Your task to perform on an android device: Search for the best way to make a resume. Image 0: 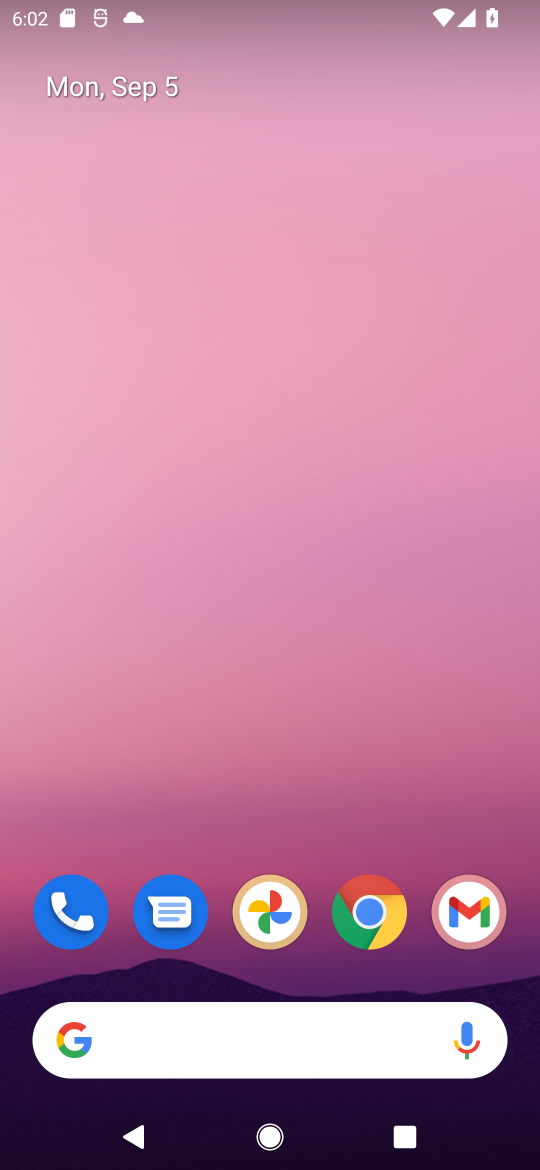
Step 0: click (380, 923)
Your task to perform on an android device: Search for the best way to make a resume. Image 1: 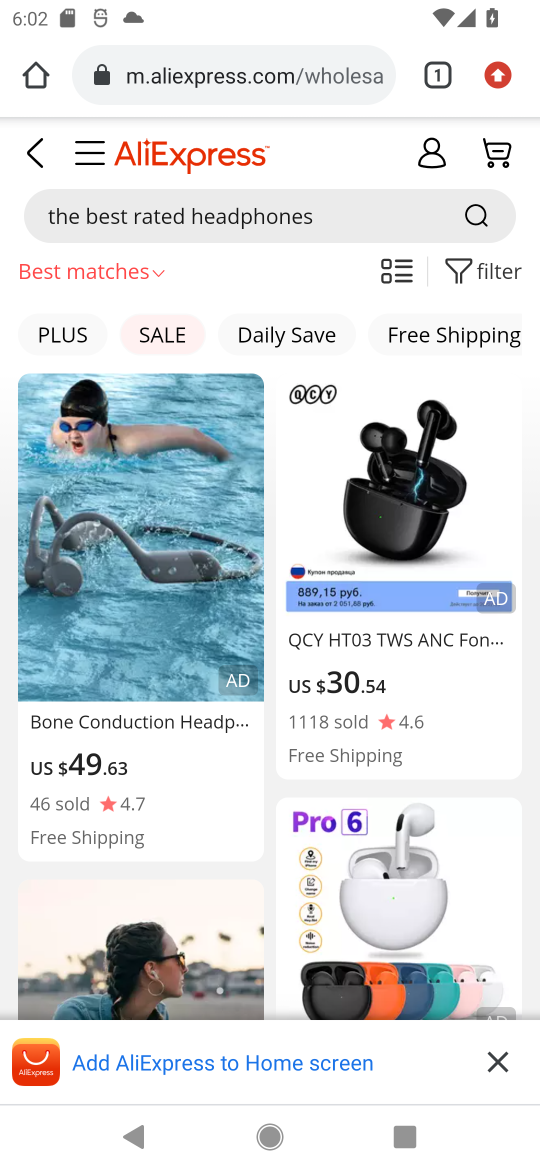
Step 1: click (326, 68)
Your task to perform on an android device: Search for the best way to make a resume. Image 2: 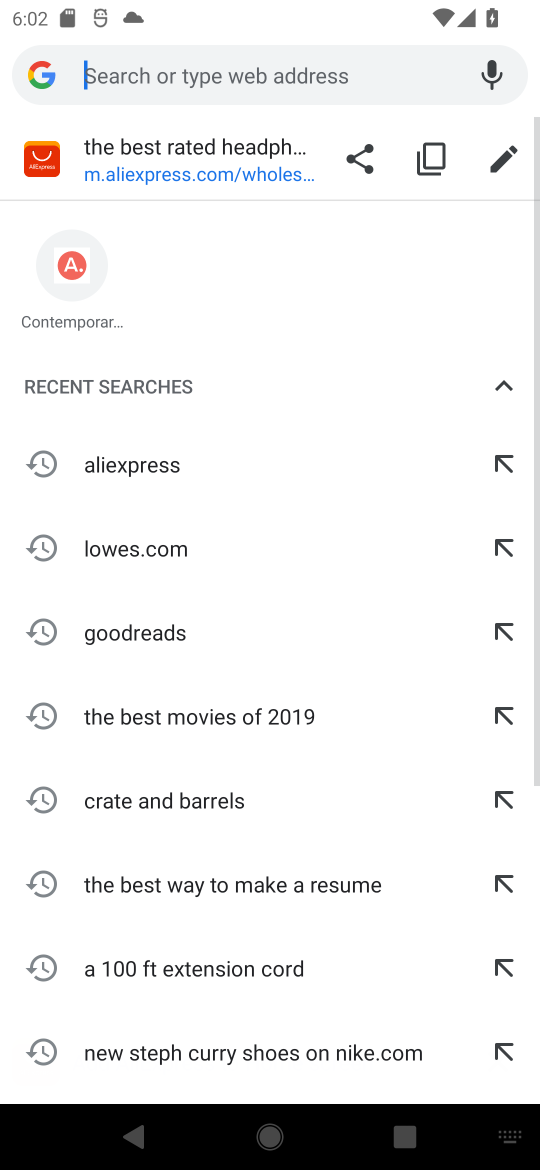
Step 2: click (495, 1163)
Your task to perform on an android device: Search for the best way to make a resume. Image 3: 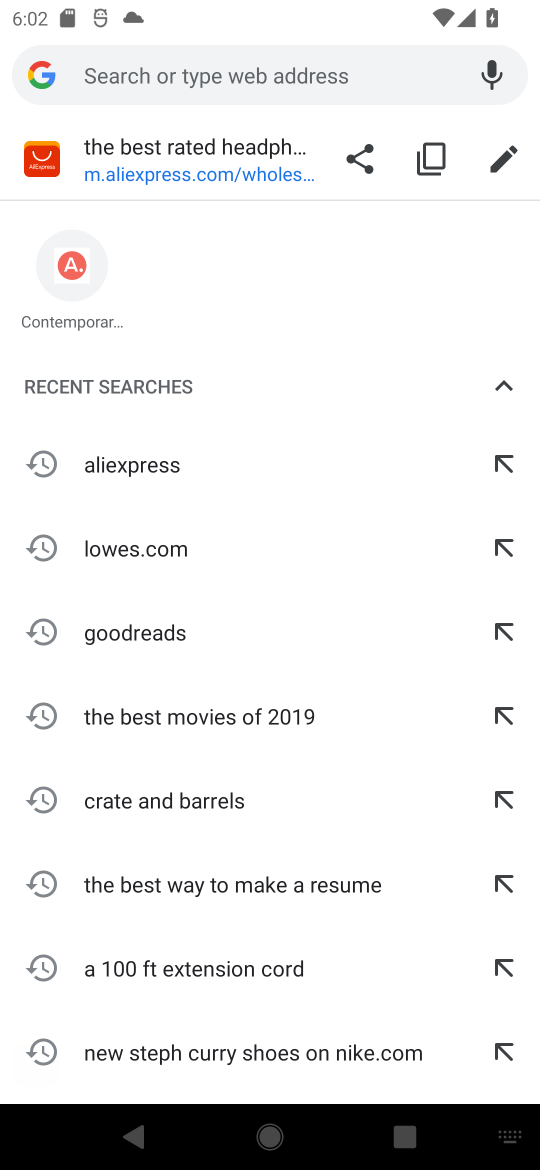
Step 3: type "the best way to make a resume"
Your task to perform on an android device: Search for the best way to make a resume. Image 4: 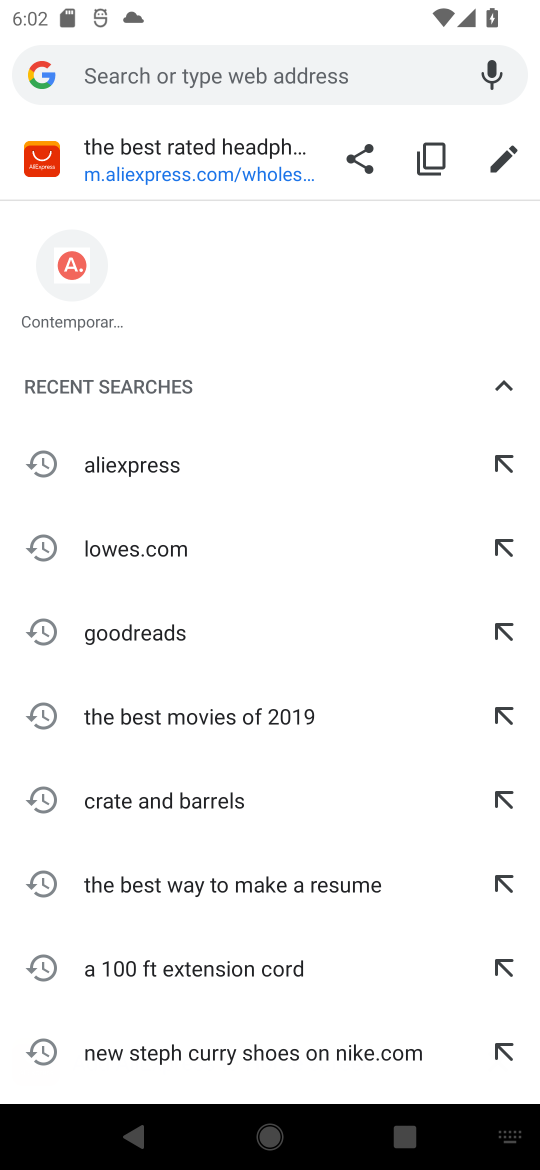
Step 4: drag from (503, 131) to (325, 69)
Your task to perform on an android device: Search for the best way to make a resume. Image 5: 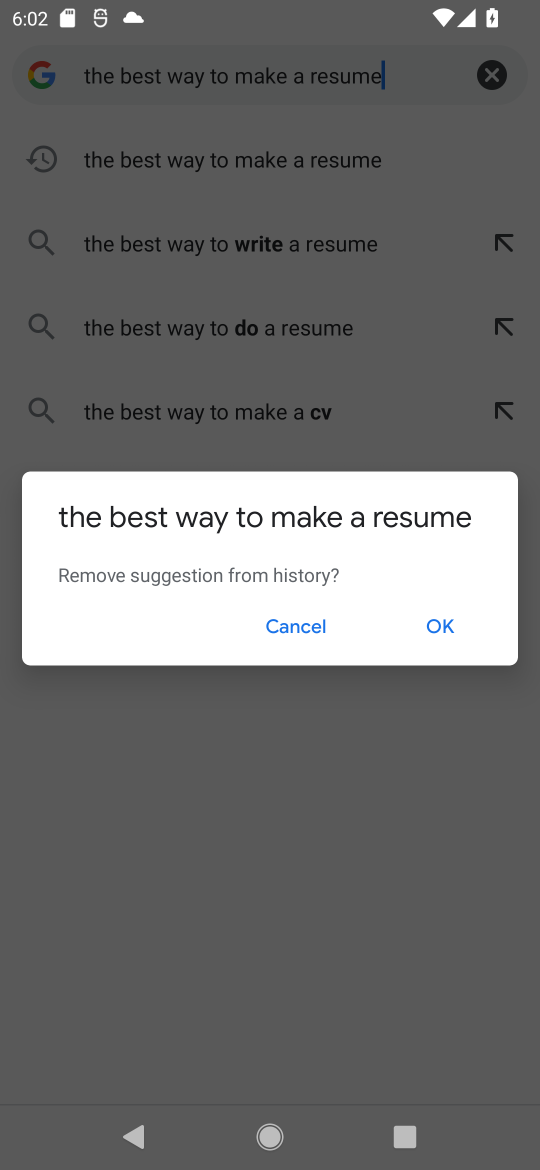
Step 5: click (306, 632)
Your task to perform on an android device: Search for the best way to make a resume. Image 6: 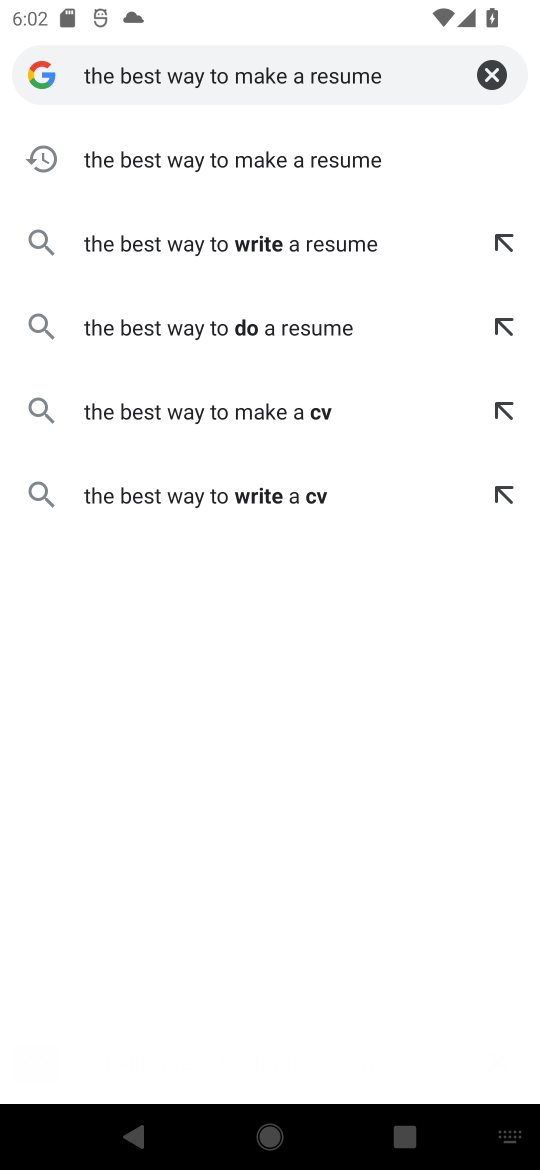
Step 6: click (410, 68)
Your task to perform on an android device: Search for the best way to make a resume. Image 7: 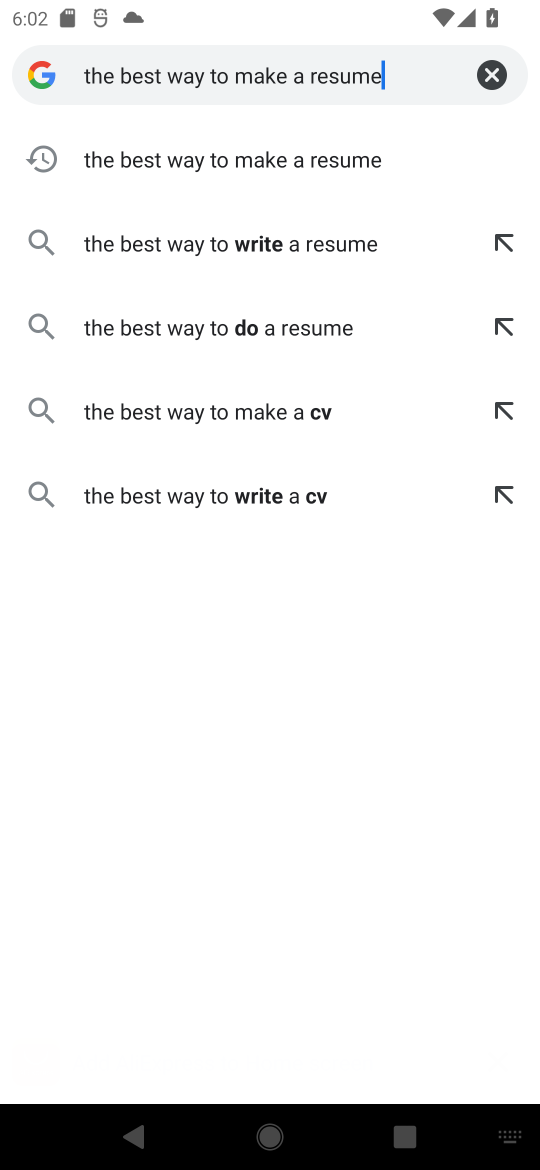
Step 7: click (241, 170)
Your task to perform on an android device: Search for the best way to make a resume. Image 8: 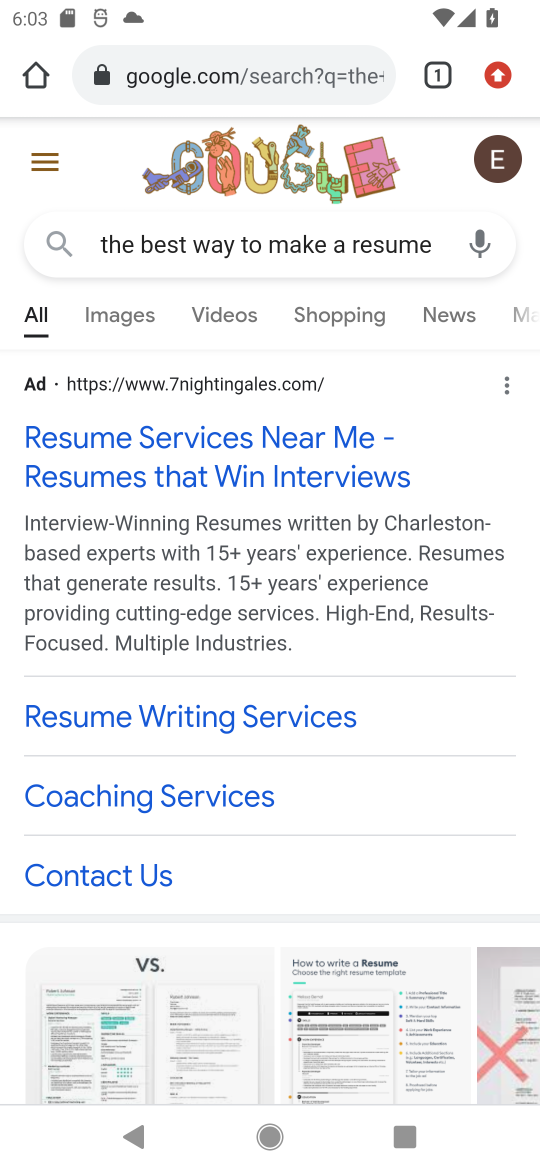
Step 8: click (241, 167)
Your task to perform on an android device: Search for the best way to make a resume. Image 9: 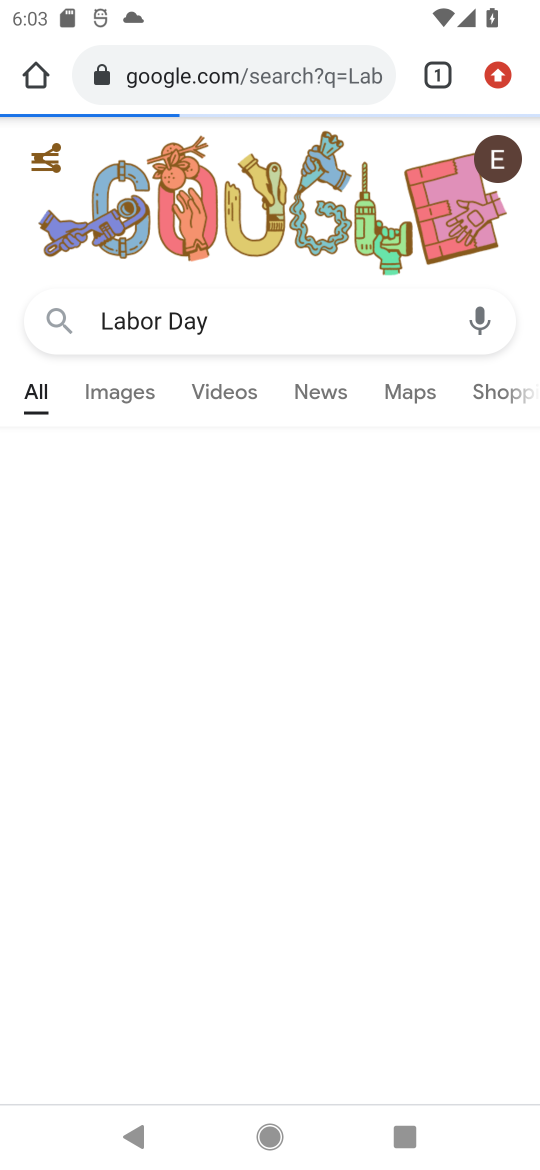
Step 9: task complete